Your task to perform on an android device: Open wifi settings Image 0: 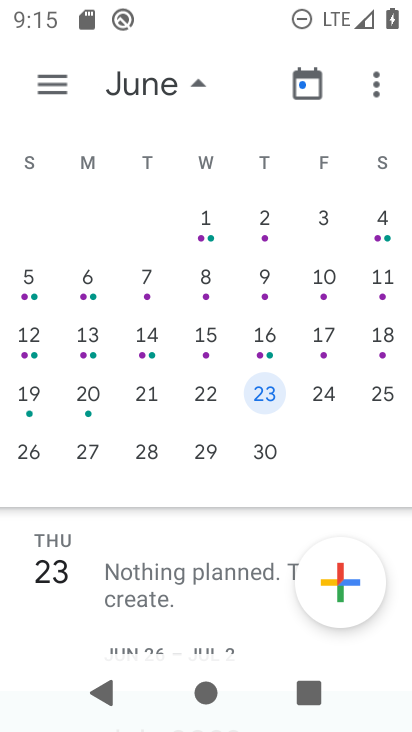
Step 0: drag from (202, 17) to (196, 688)
Your task to perform on an android device: Open wifi settings Image 1: 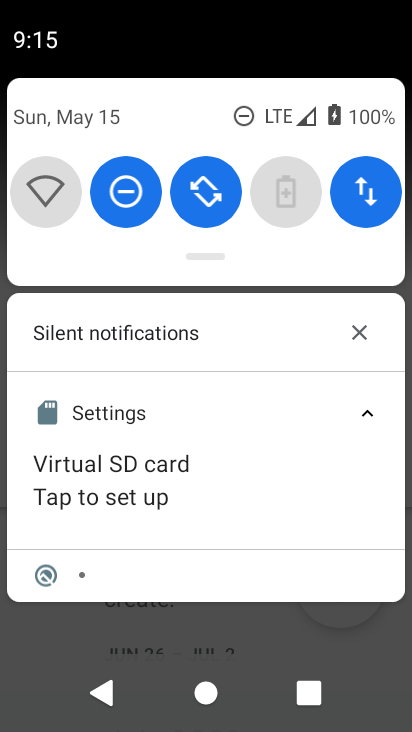
Step 1: click (63, 206)
Your task to perform on an android device: Open wifi settings Image 2: 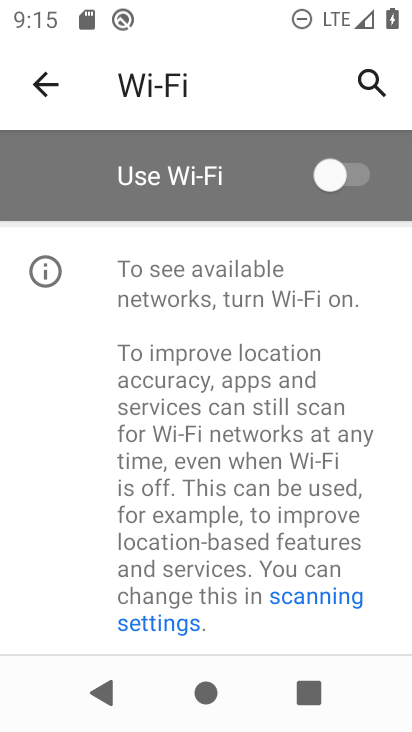
Step 2: task complete